Your task to perform on an android device: turn vacation reply on in the gmail app Image 0: 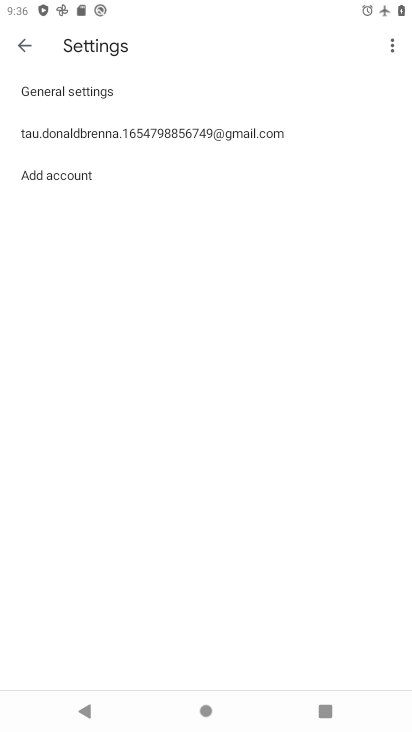
Step 0: click (31, 54)
Your task to perform on an android device: turn vacation reply on in the gmail app Image 1: 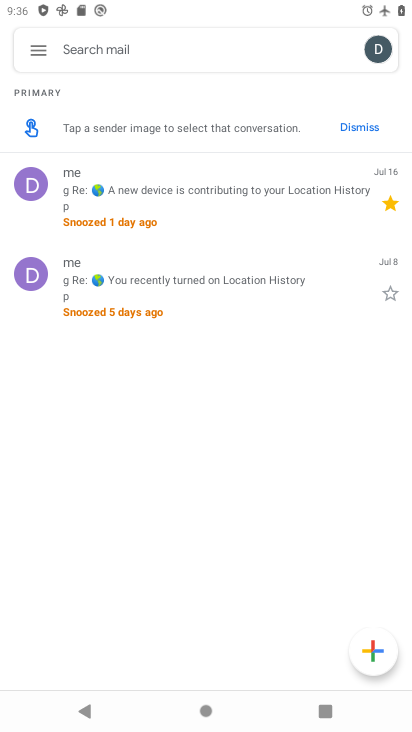
Step 1: click (31, 51)
Your task to perform on an android device: turn vacation reply on in the gmail app Image 2: 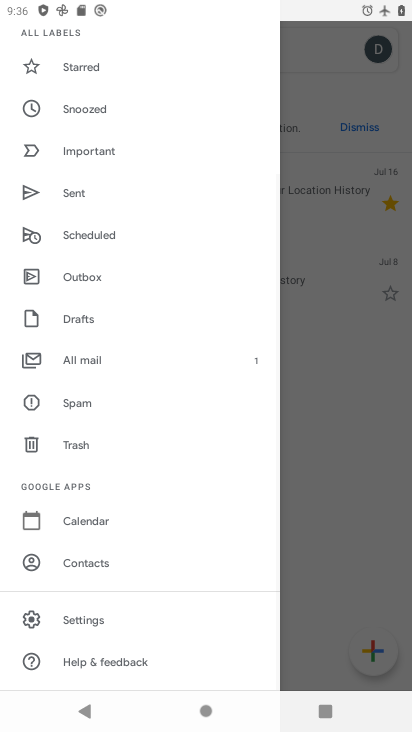
Step 2: click (87, 613)
Your task to perform on an android device: turn vacation reply on in the gmail app Image 3: 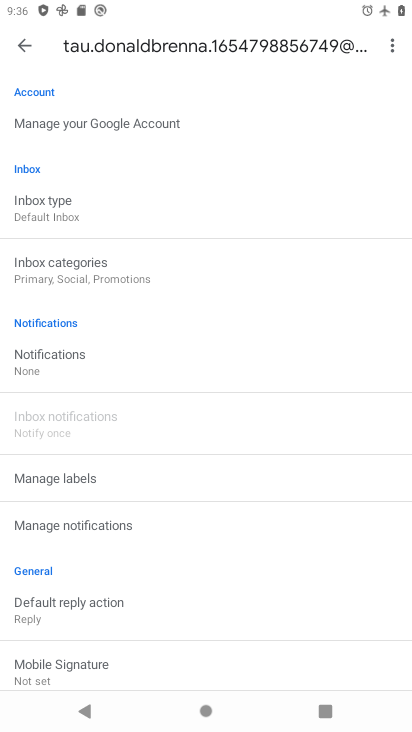
Step 3: drag from (87, 606) to (118, 261)
Your task to perform on an android device: turn vacation reply on in the gmail app Image 4: 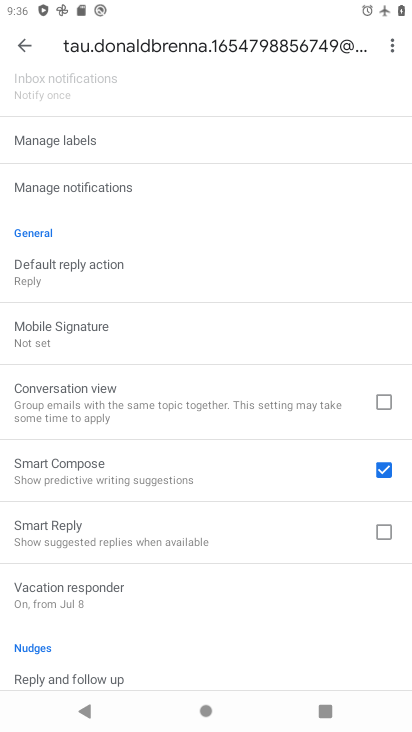
Step 4: click (85, 607)
Your task to perform on an android device: turn vacation reply on in the gmail app Image 5: 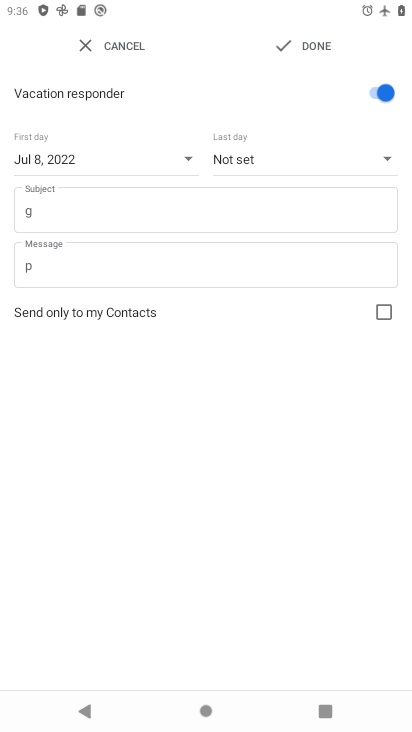
Step 5: task complete